Your task to perform on an android device: Open my contact list Image 0: 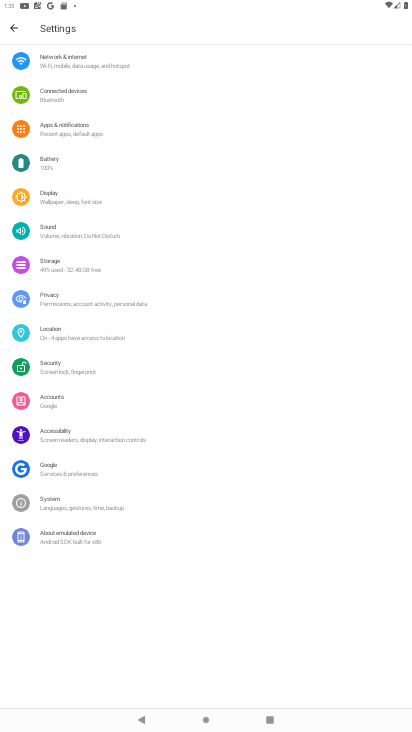
Step 0: press home button
Your task to perform on an android device: Open my contact list Image 1: 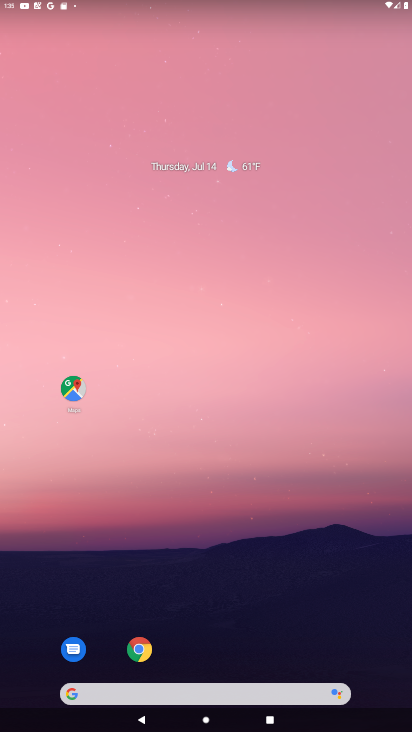
Step 1: drag from (291, 595) to (224, 78)
Your task to perform on an android device: Open my contact list Image 2: 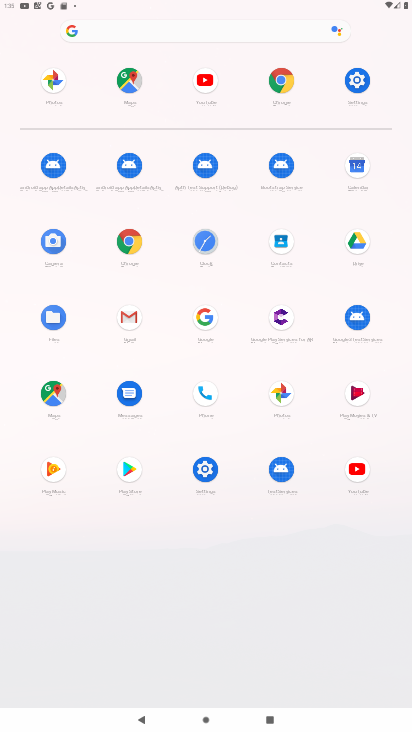
Step 2: click (278, 249)
Your task to perform on an android device: Open my contact list Image 3: 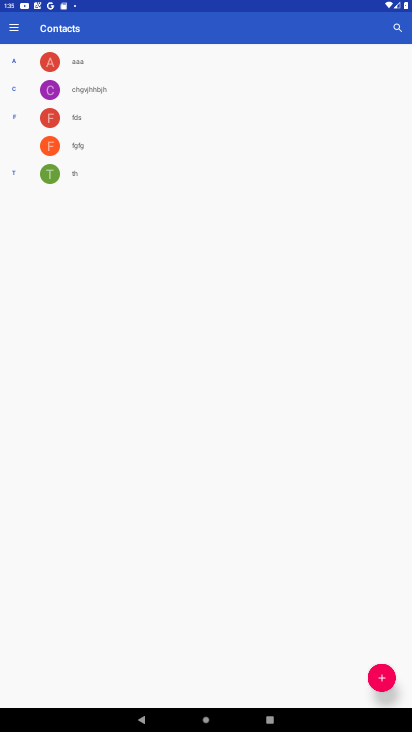
Step 3: task complete